Your task to perform on an android device: open app "Walmart Shopping & Grocery" Image 0: 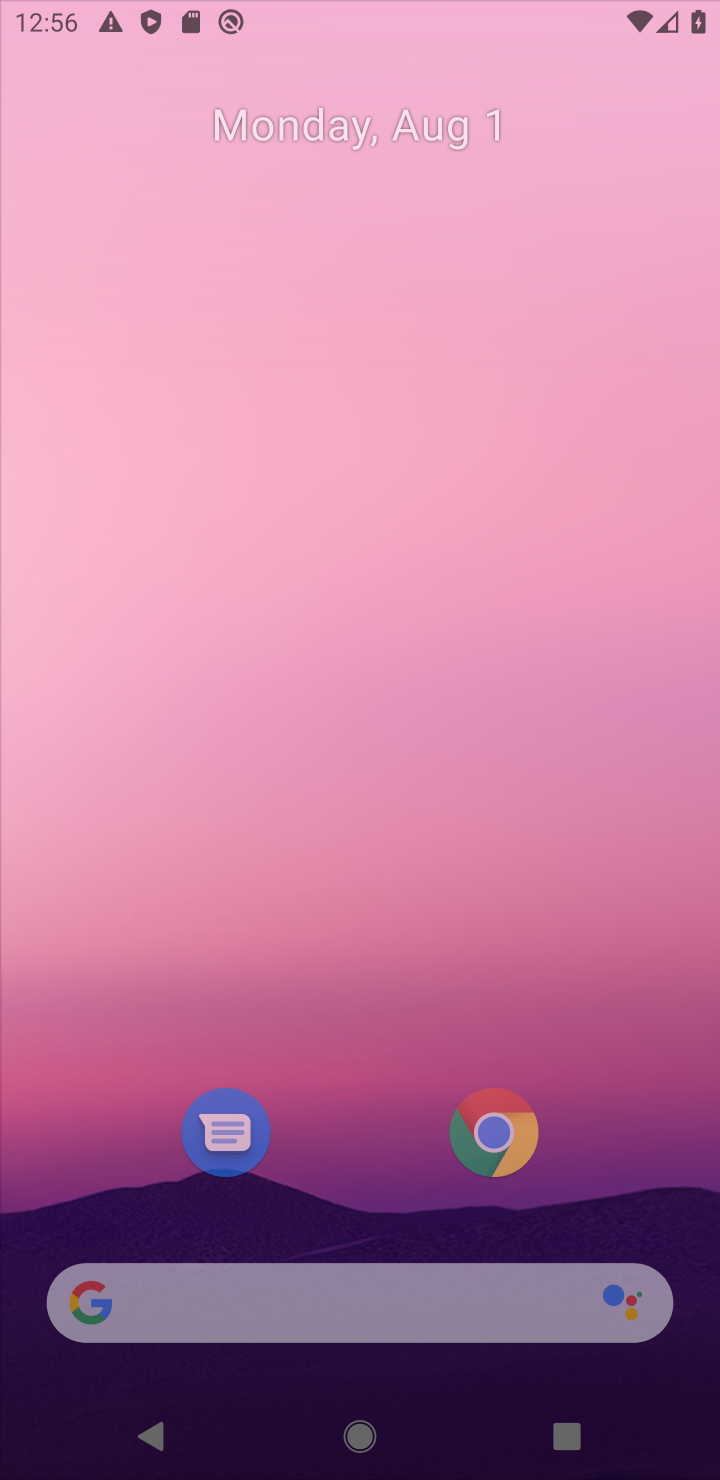
Step 0: press home button
Your task to perform on an android device: open app "Walmart Shopping & Grocery" Image 1: 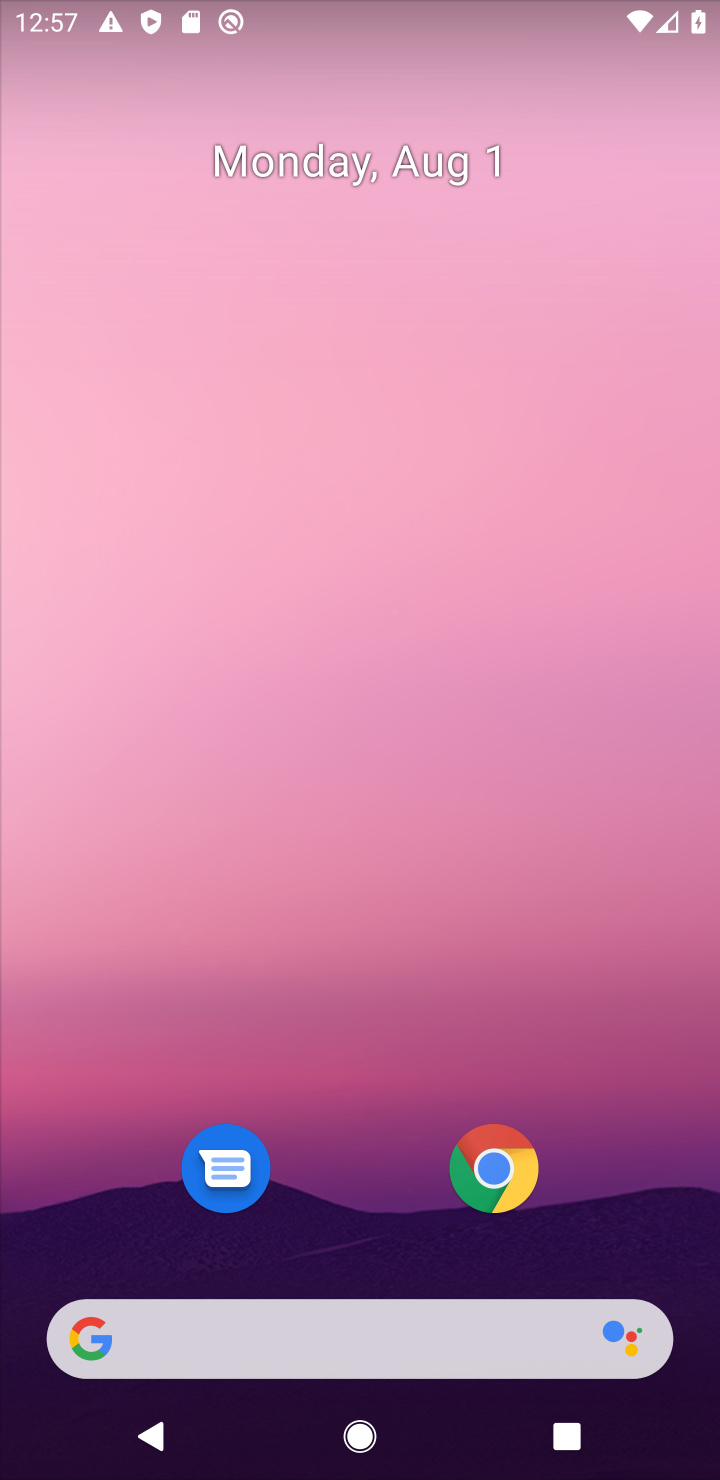
Step 1: drag from (336, 1184) to (281, 170)
Your task to perform on an android device: open app "Walmart Shopping & Grocery" Image 2: 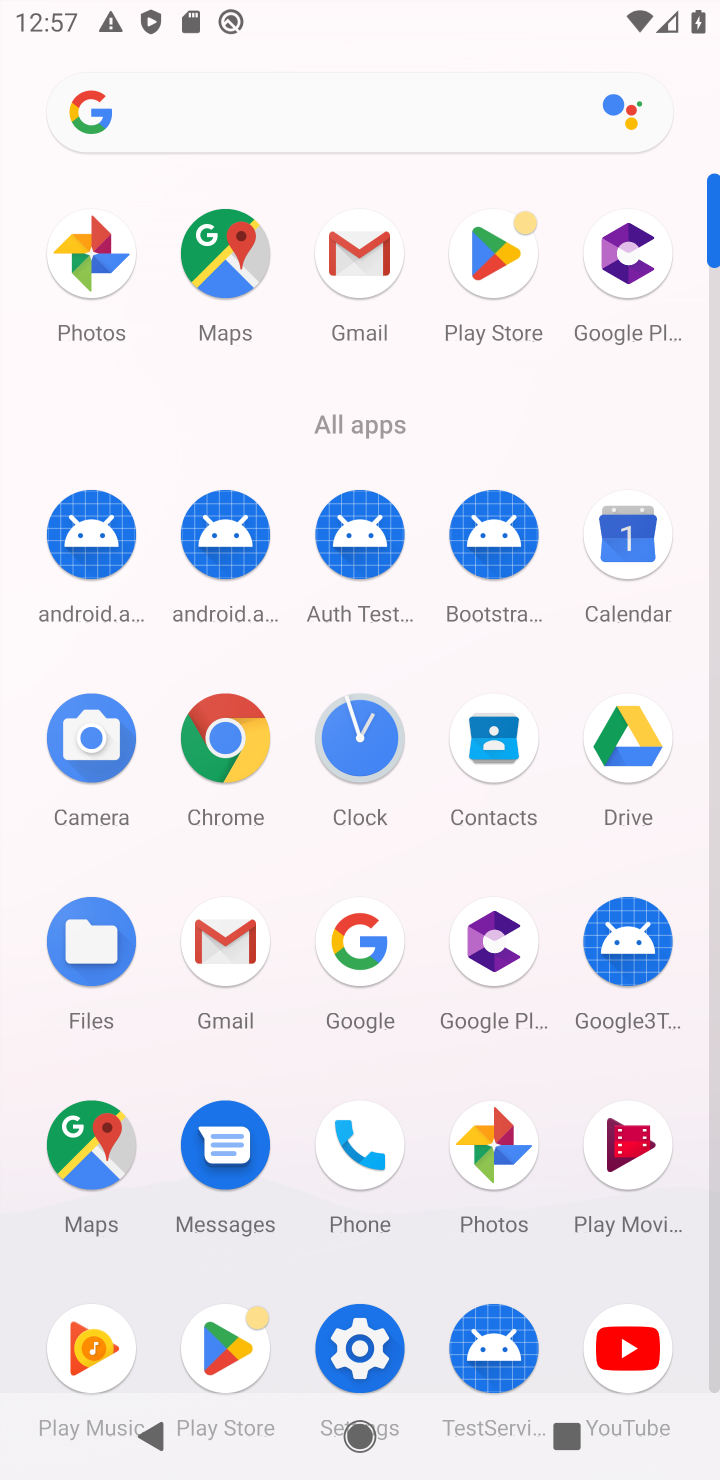
Step 2: click (493, 270)
Your task to perform on an android device: open app "Walmart Shopping & Grocery" Image 3: 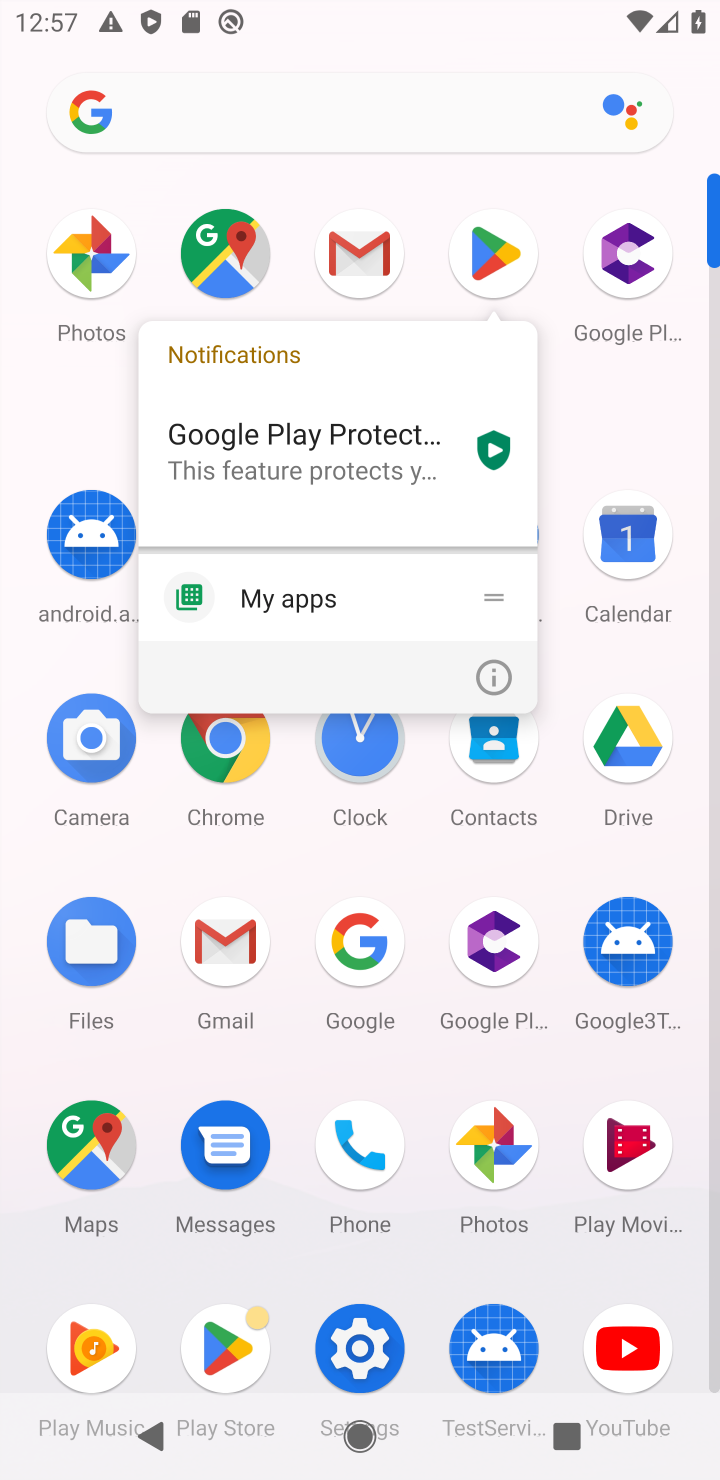
Step 3: click (479, 260)
Your task to perform on an android device: open app "Walmart Shopping & Grocery" Image 4: 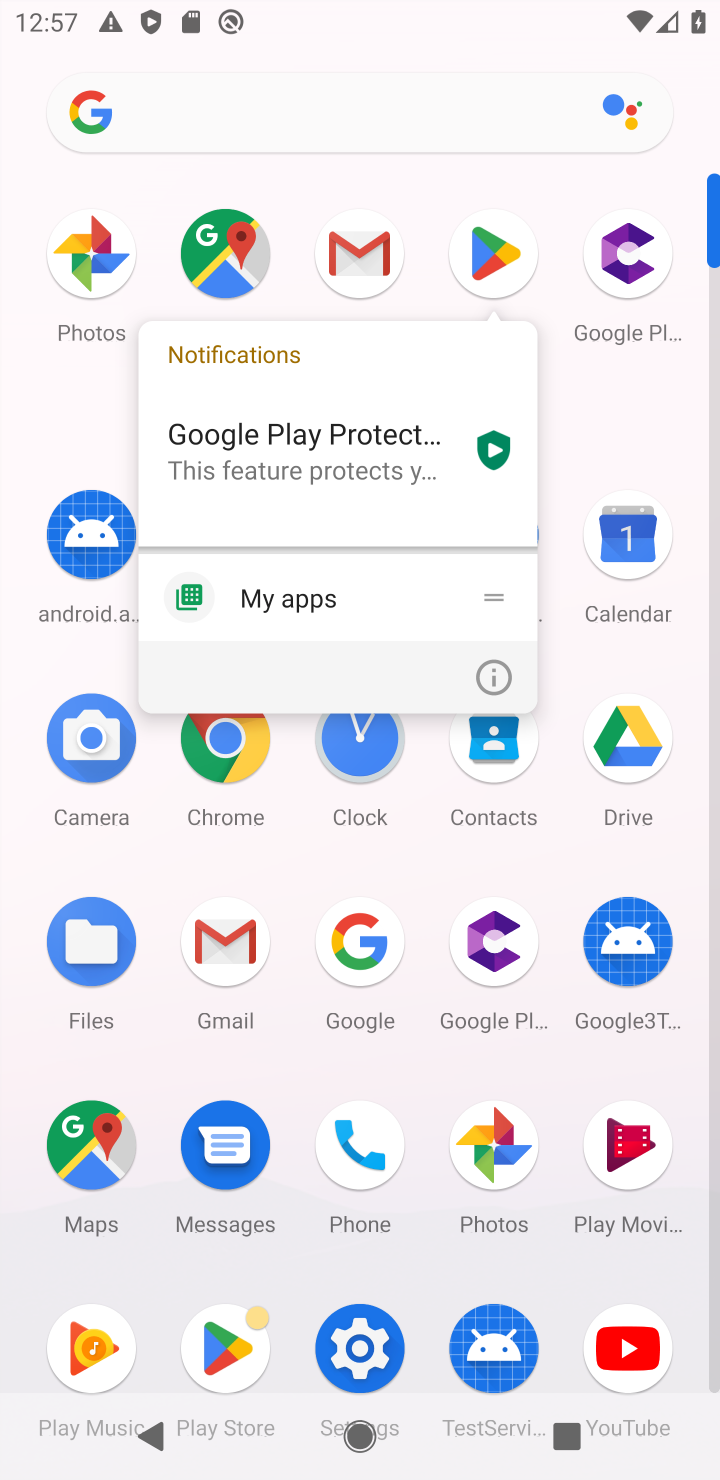
Step 4: click (479, 260)
Your task to perform on an android device: open app "Walmart Shopping & Grocery" Image 5: 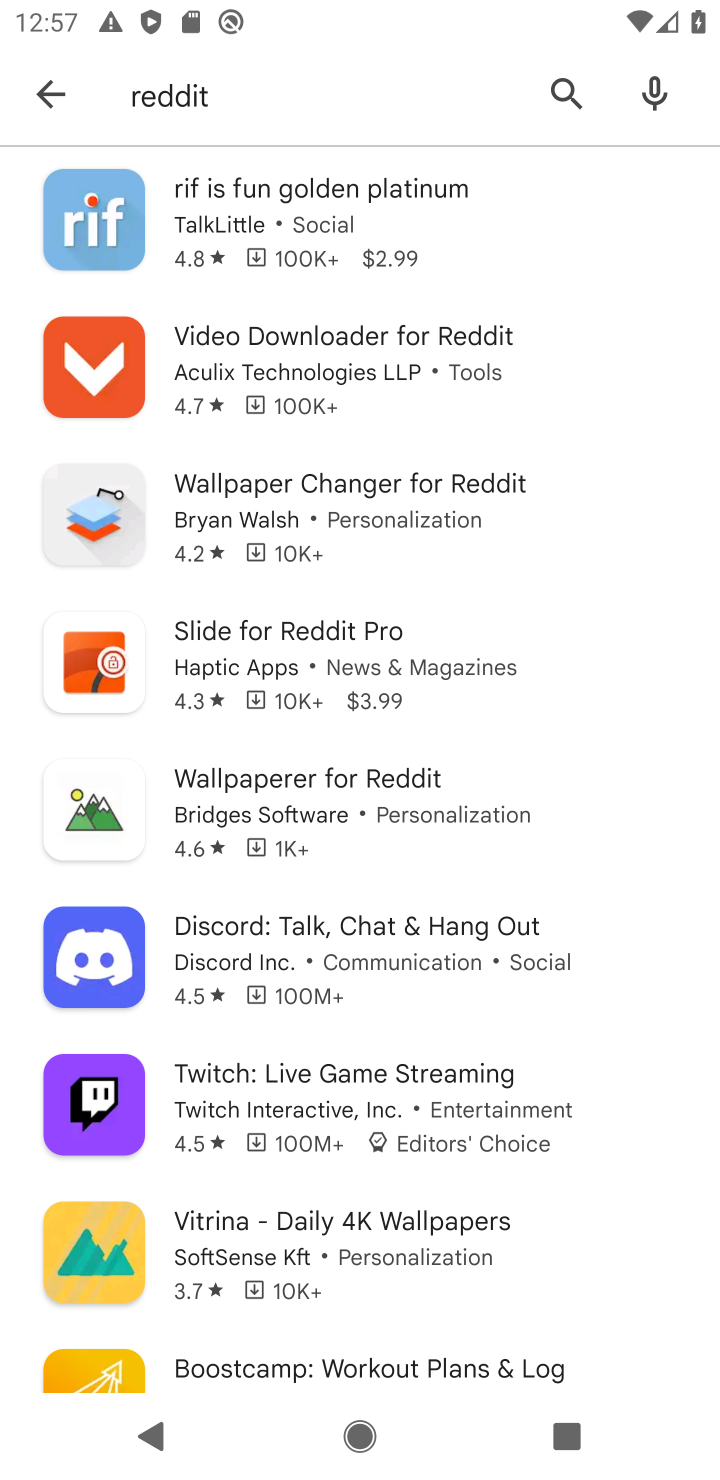
Step 5: click (573, 93)
Your task to perform on an android device: open app "Walmart Shopping & Grocery" Image 6: 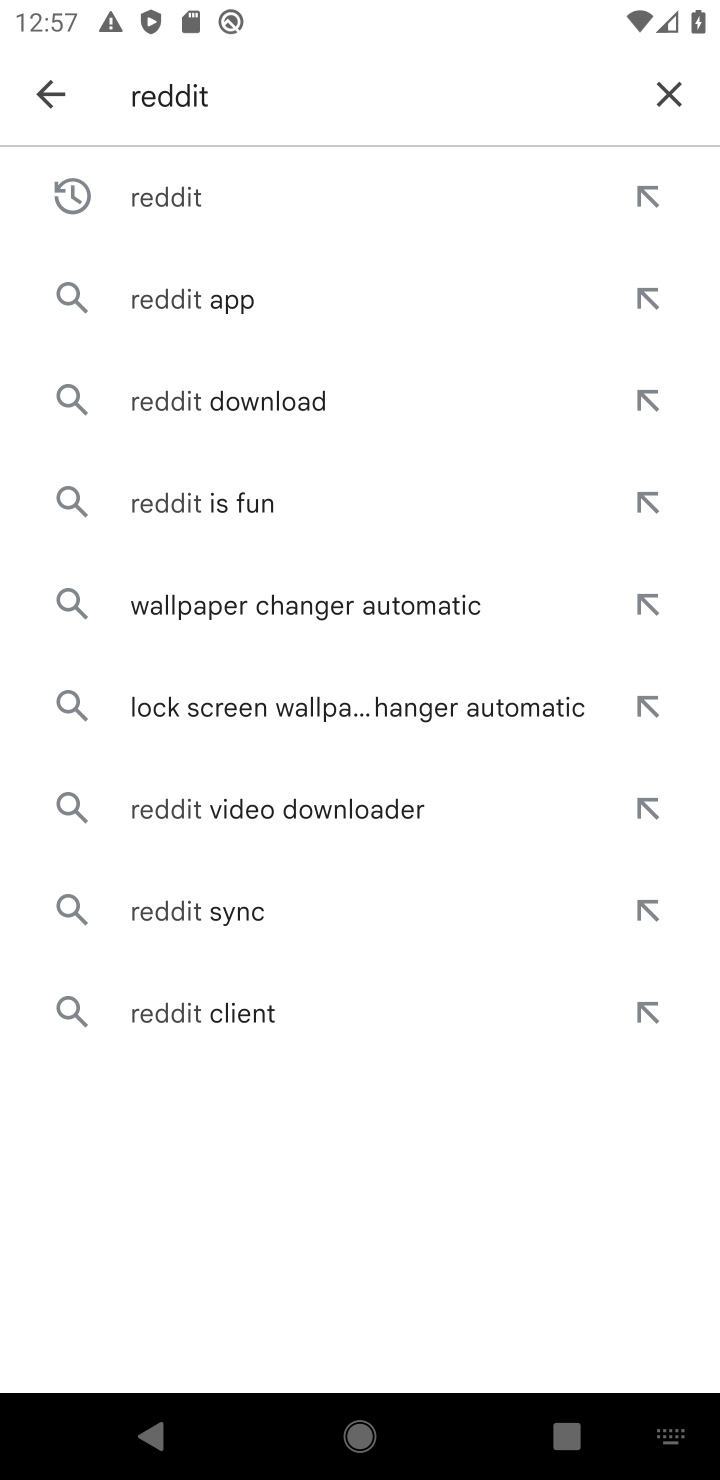
Step 6: click (673, 92)
Your task to perform on an android device: open app "Walmart Shopping & Grocery" Image 7: 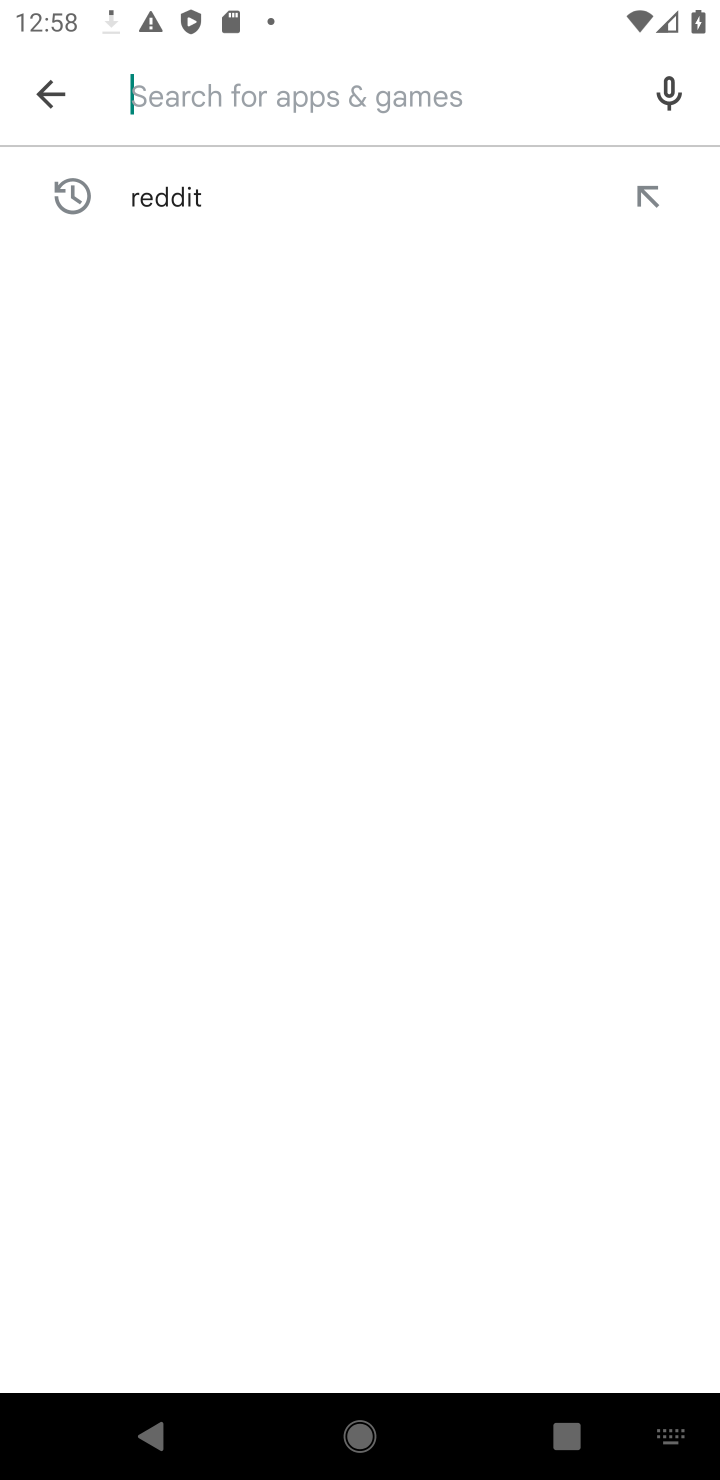
Step 7: type "walmart shopping & grocery"
Your task to perform on an android device: open app "Walmart Shopping & Grocery" Image 8: 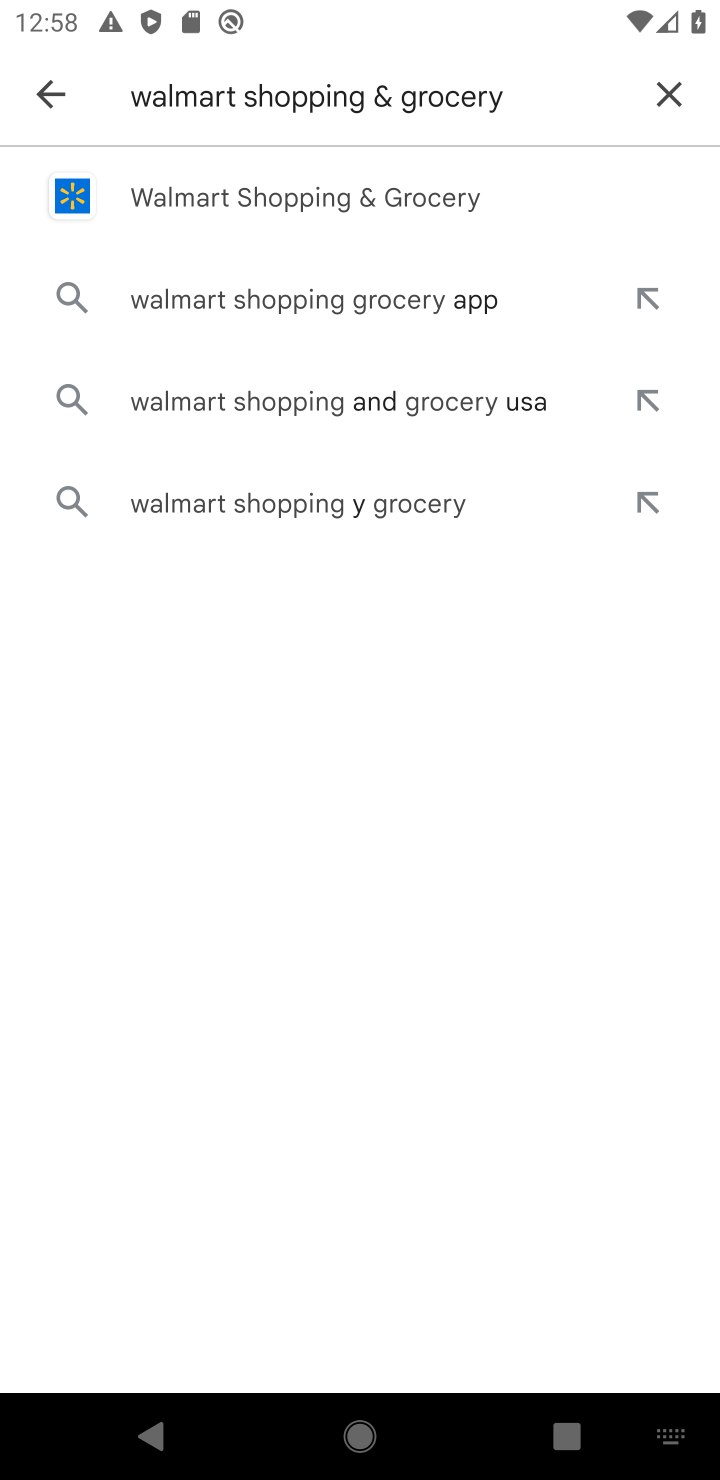
Step 8: click (485, 195)
Your task to perform on an android device: open app "Walmart Shopping & Grocery" Image 9: 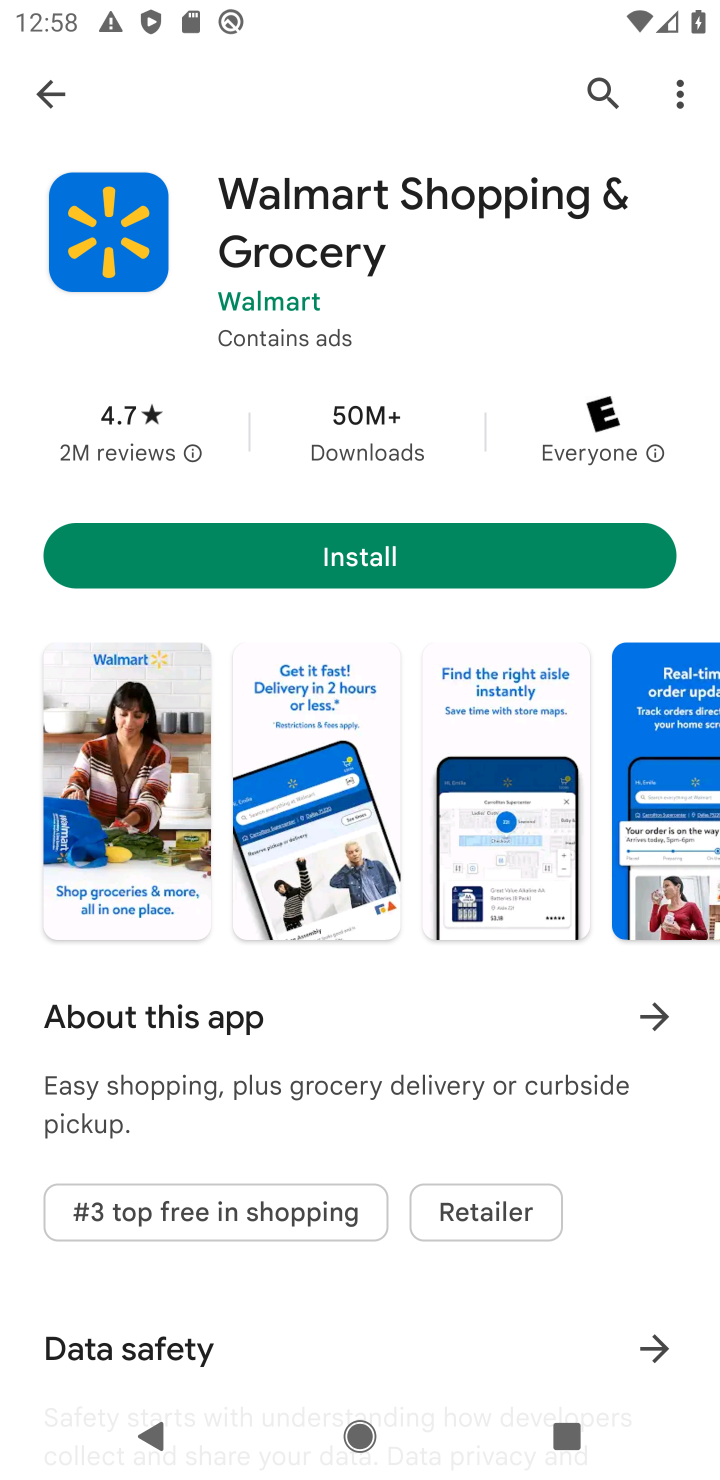
Step 9: task complete